Your task to perform on an android device: change the clock display to show seconds Image 0: 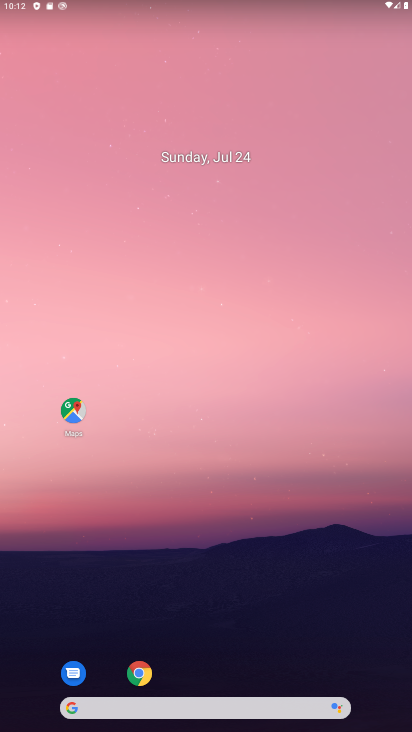
Step 0: drag from (230, 597) to (204, 232)
Your task to perform on an android device: change the clock display to show seconds Image 1: 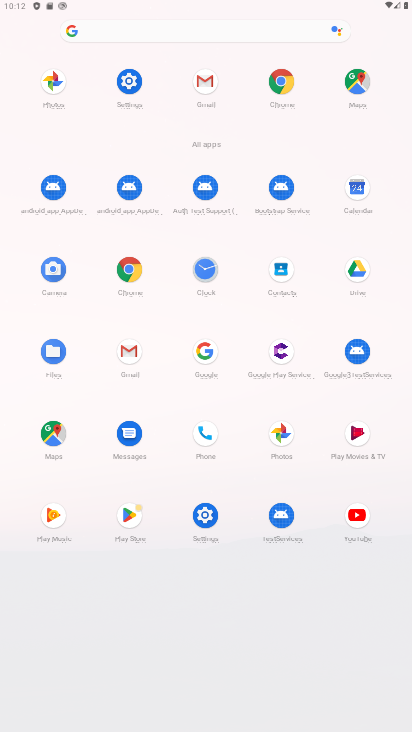
Step 1: click (204, 275)
Your task to perform on an android device: change the clock display to show seconds Image 2: 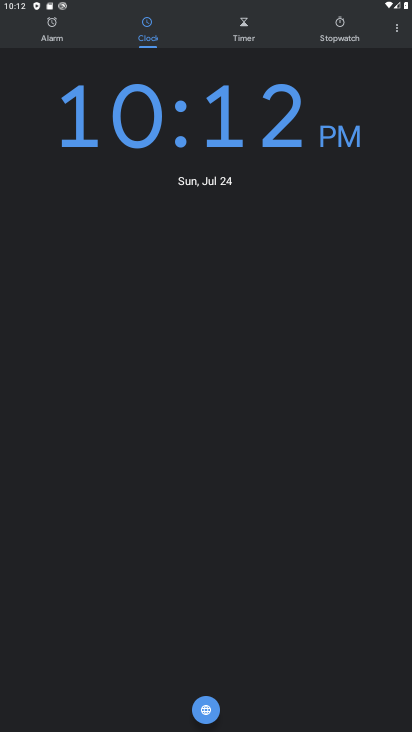
Step 2: click (400, 28)
Your task to perform on an android device: change the clock display to show seconds Image 3: 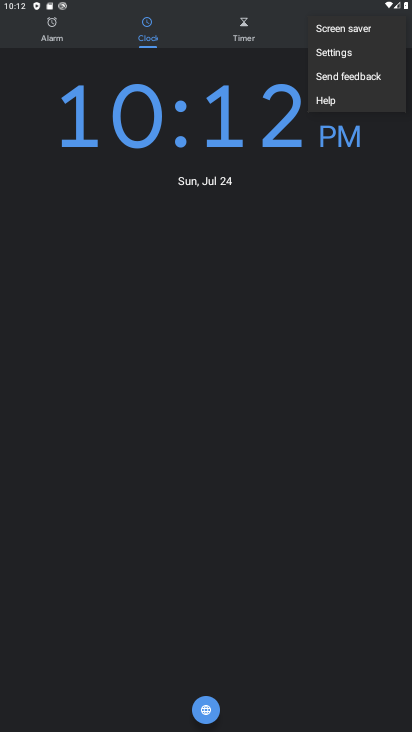
Step 3: click (352, 53)
Your task to perform on an android device: change the clock display to show seconds Image 4: 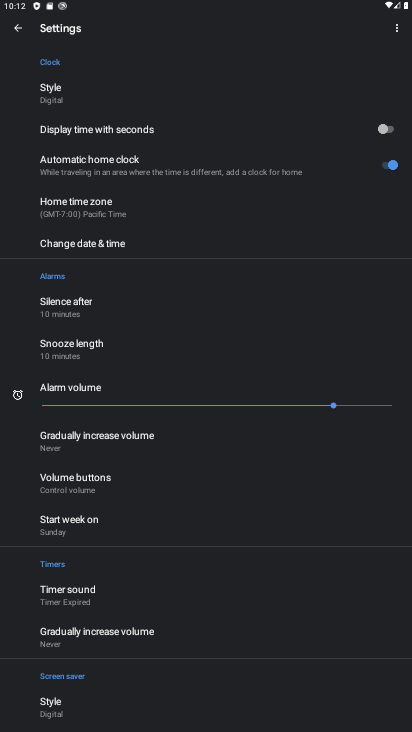
Step 4: click (385, 131)
Your task to perform on an android device: change the clock display to show seconds Image 5: 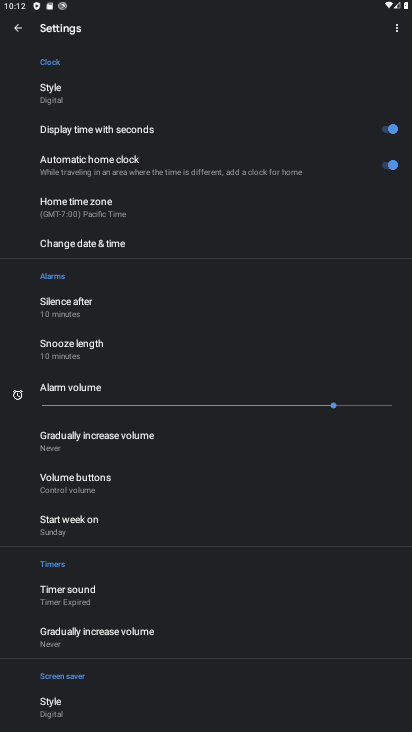
Step 5: task complete